Your task to perform on an android device: delete a single message in the gmail app Image 0: 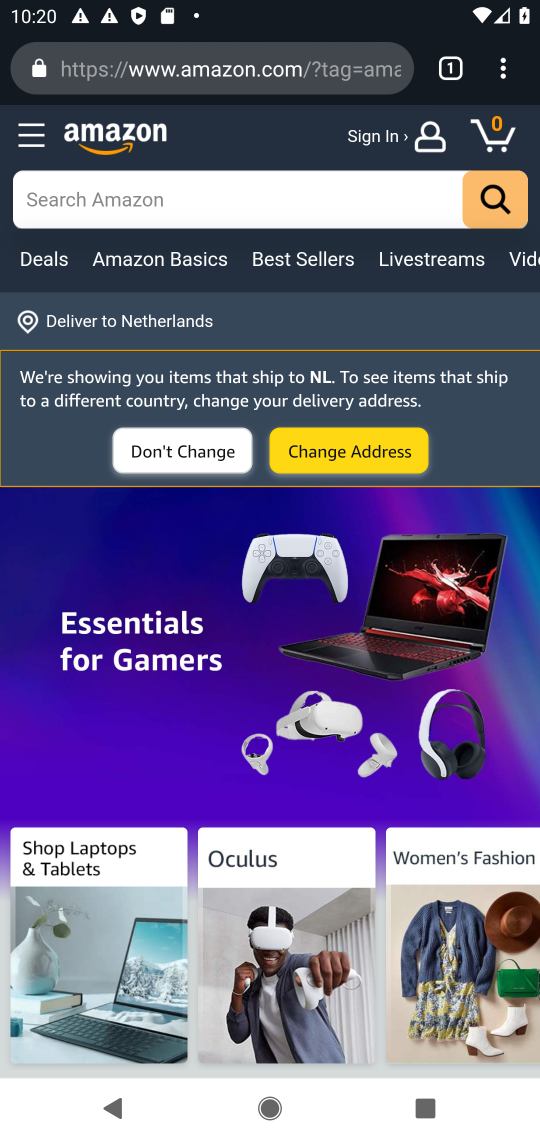
Step 0: press back button
Your task to perform on an android device: delete a single message in the gmail app Image 1: 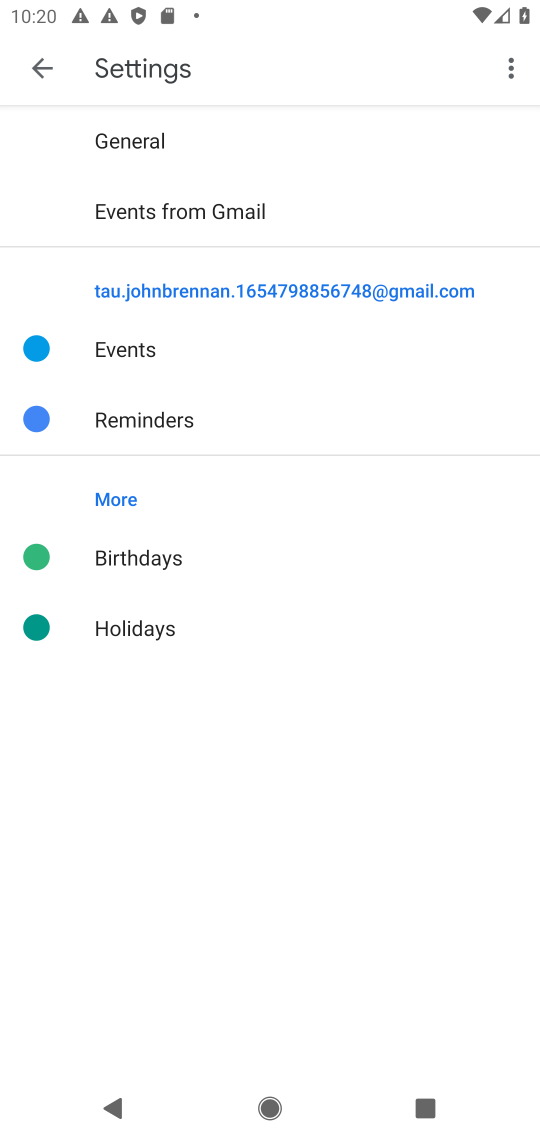
Step 1: press home button
Your task to perform on an android device: delete a single message in the gmail app Image 2: 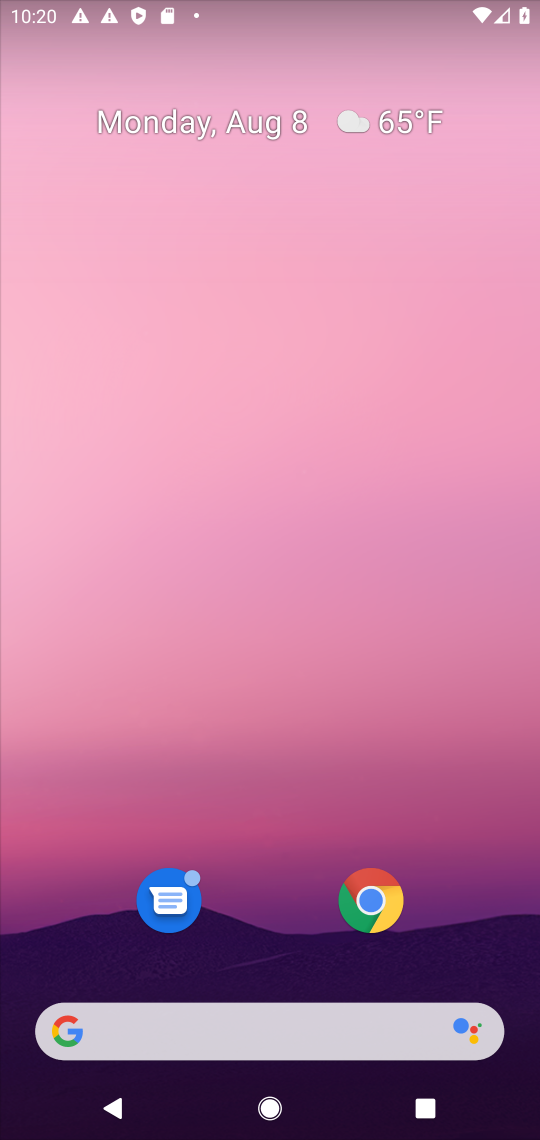
Step 2: drag from (228, 811) to (229, 137)
Your task to perform on an android device: delete a single message in the gmail app Image 3: 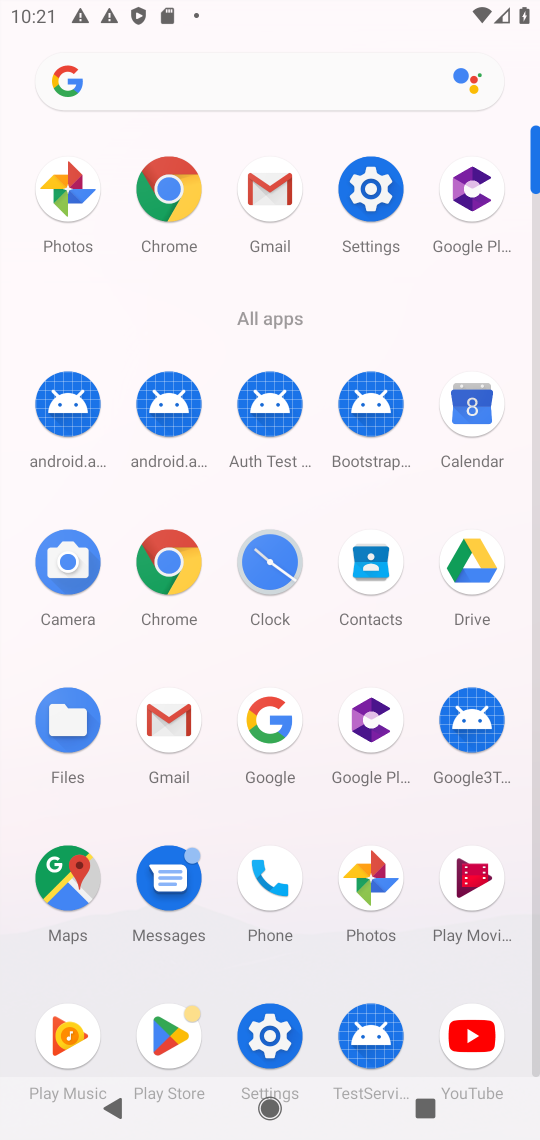
Step 3: click (268, 199)
Your task to perform on an android device: delete a single message in the gmail app Image 4: 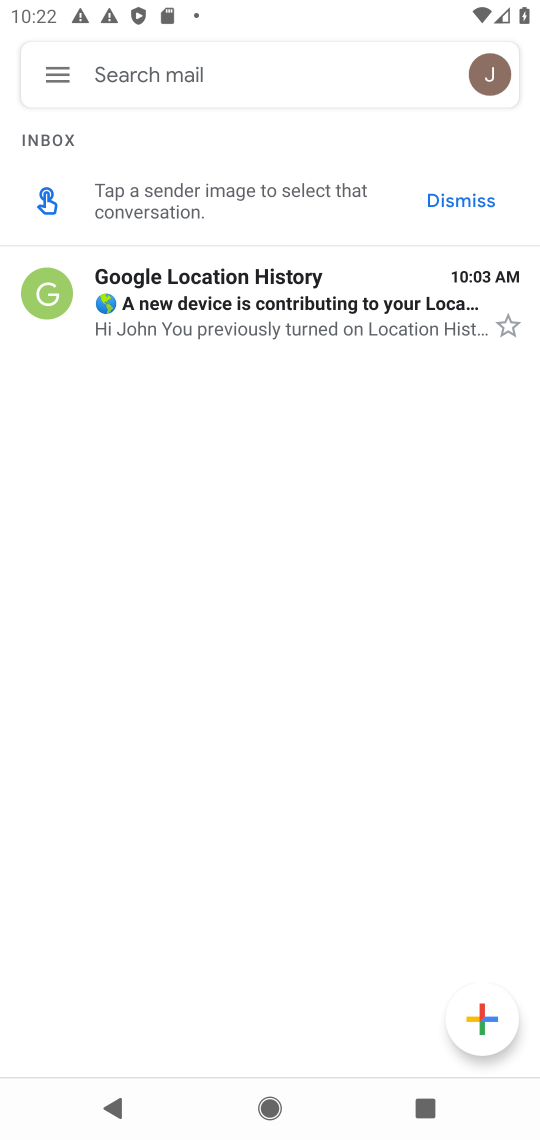
Step 4: click (229, 292)
Your task to perform on an android device: delete a single message in the gmail app Image 5: 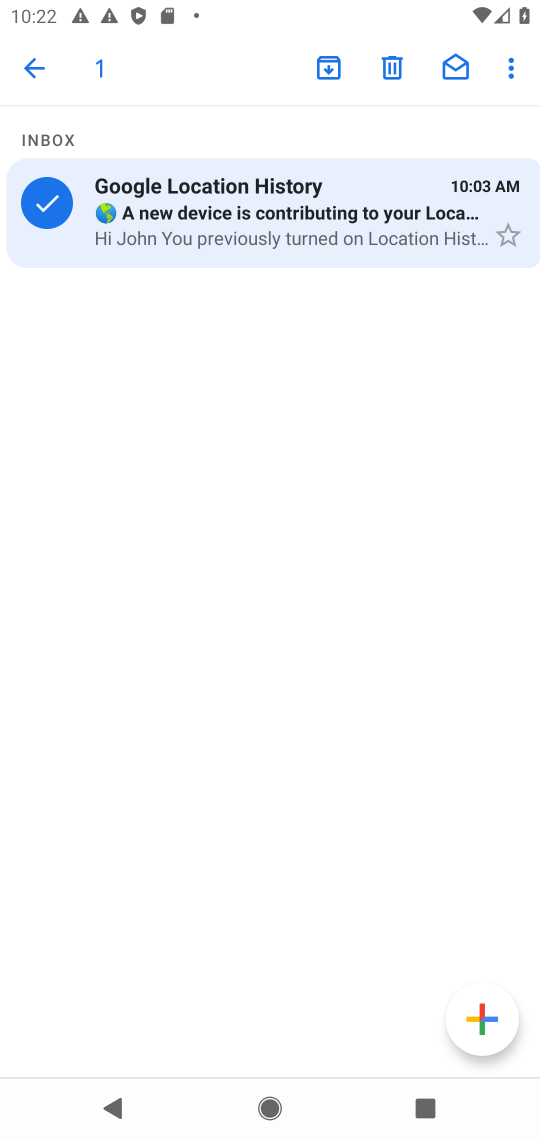
Step 5: click (400, 63)
Your task to perform on an android device: delete a single message in the gmail app Image 6: 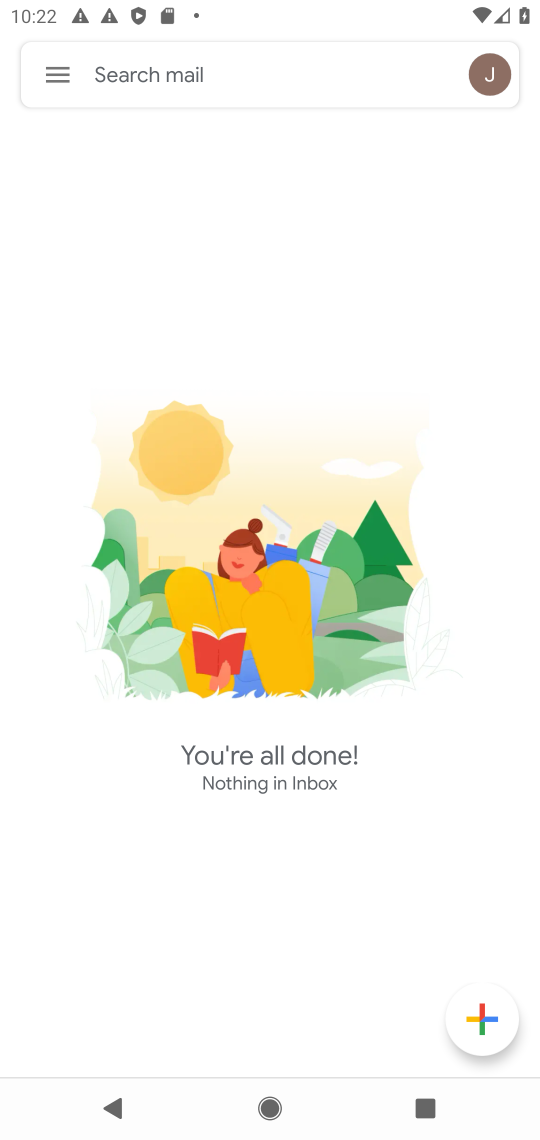
Step 6: task complete